Your task to perform on an android device: check the backup settings in the google photos Image 0: 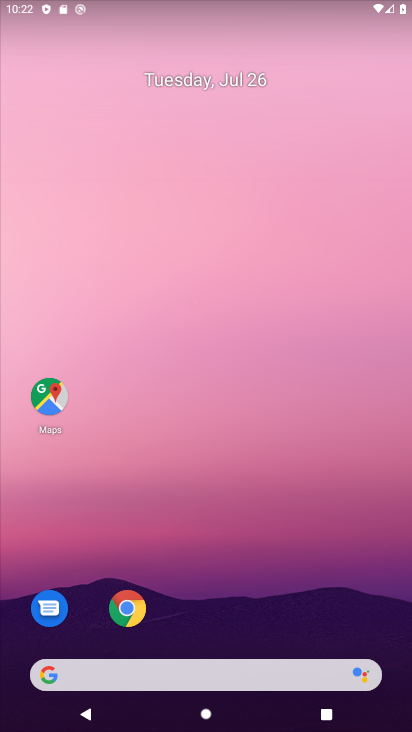
Step 0: drag from (290, 308) to (284, 94)
Your task to perform on an android device: check the backup settings in the google photos Image 1: 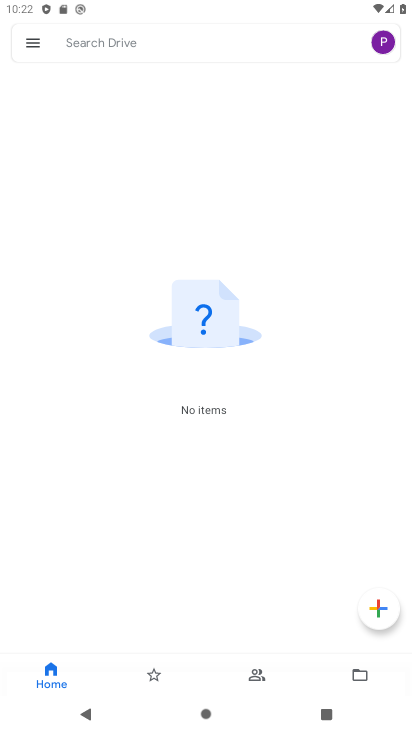
Step 1: press home button
Your task to perform on an android device: check the backup settings in the google photos Image 2: 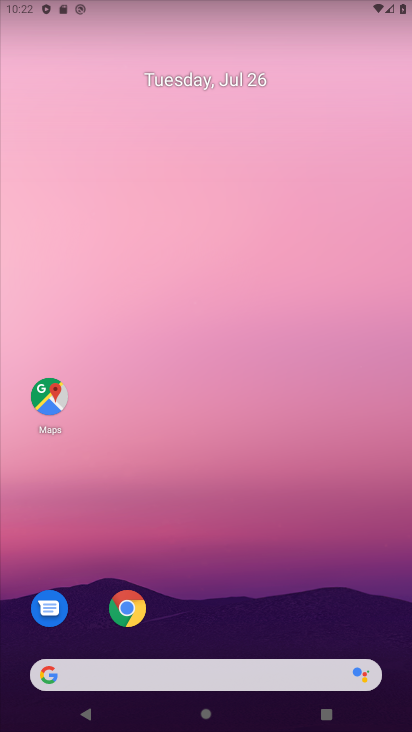
Step 2: drag from (315, 607) to (261, 38)
Your task to perform on an android device: check the backup settings in the google photos Image 3: 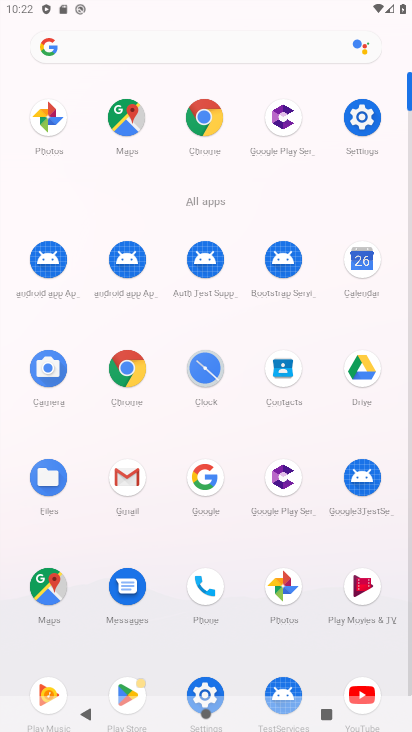
Step 3: click (291, 587)
Your task to perform on an android device: check the backup settings in the google photos Image 4: 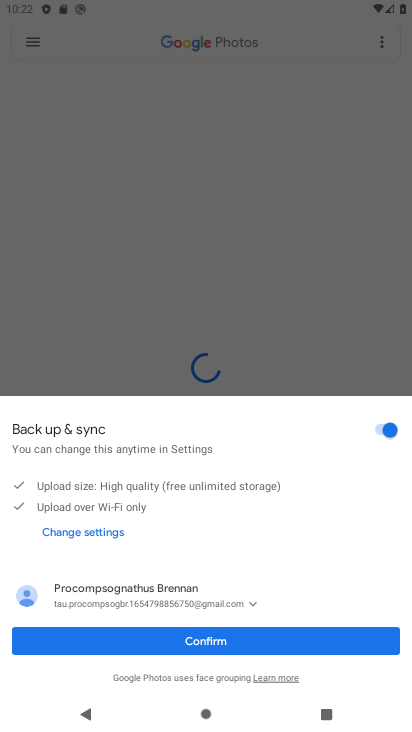
Step 4: click (300, 641)
Your task to perform on an android device: check the backup settings in the google photos Image 5: 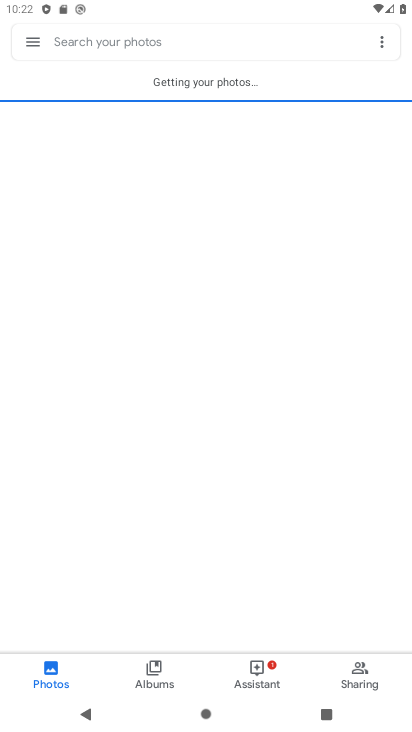
Step 5: click (28, 37)
Your task to perform on an android device: check the backup settings in the google photos Image 6: 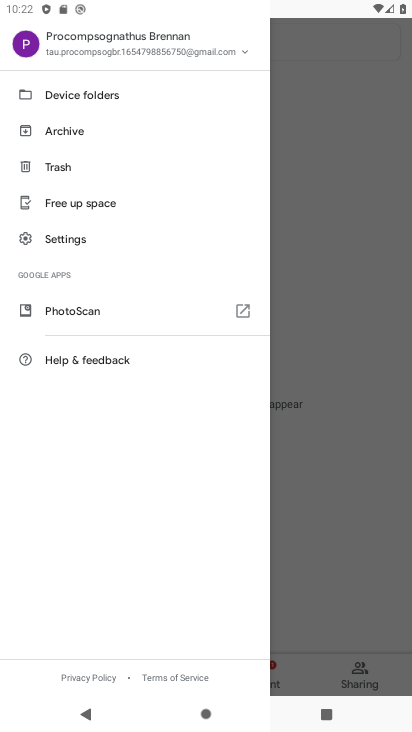
Step 6: click (70, 238)
Your task to perform on an android device: check the backup settings in the google photos Image 7: 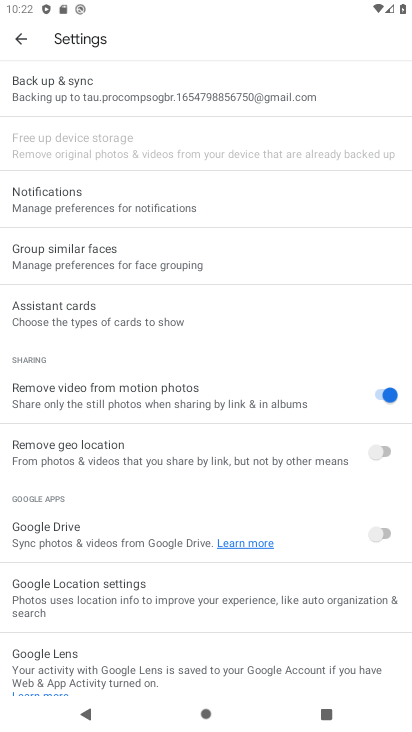
Step 7: click (136, 104)
Your task to perform on an android device: check the backup settings in the google photos Image 8: 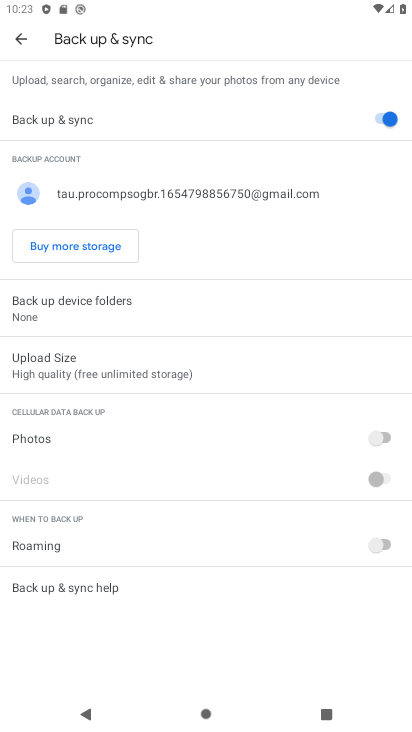
Step 8: task complete